Your task to perform on an android device: check battery use Image 0: 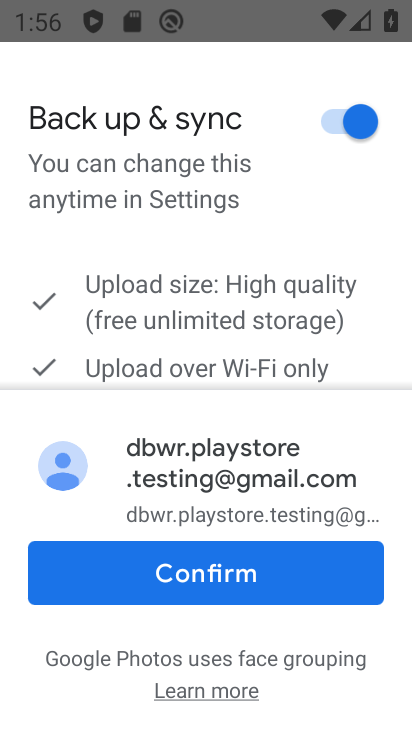
Step 0: click (245, 586)
Your task to perform on an android device: check battery use Image 1: 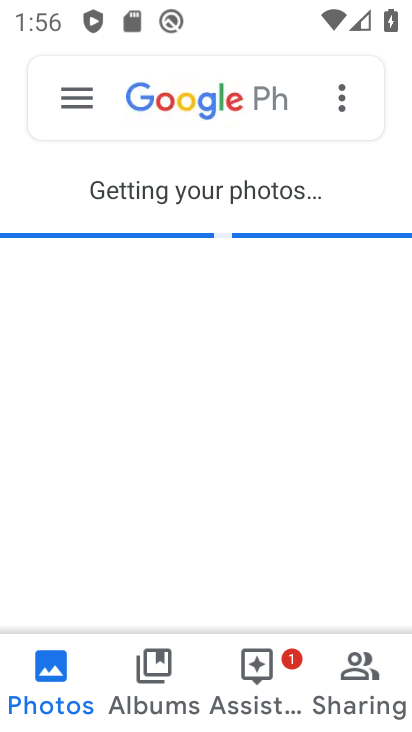
Step 1: press home button
Your task to perform on an android device: check battery use Image 2: 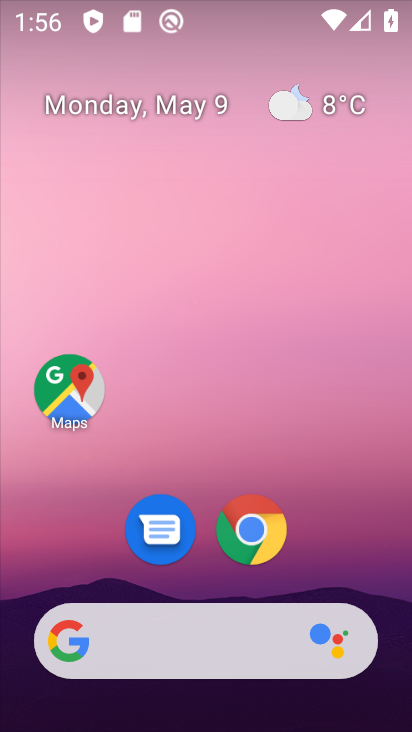
Step 2: drag from (276, 616) to (324, 2)
Your task to perform on an android device: check battery use Image 3: 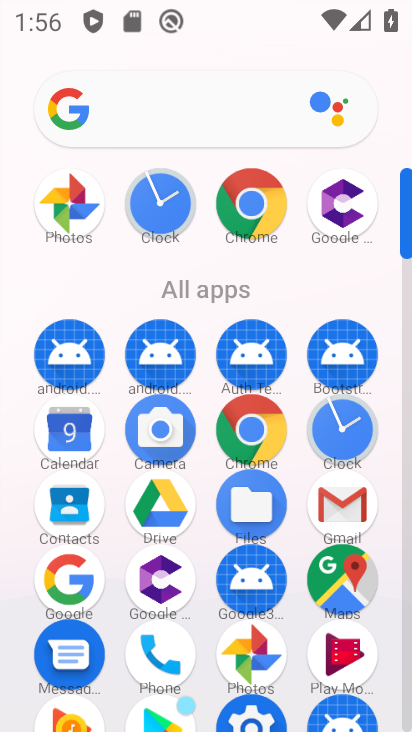
Step 3: drag from (206, 625) to (253, 30)
Your task to perform on an android device: check battery use Image 4: 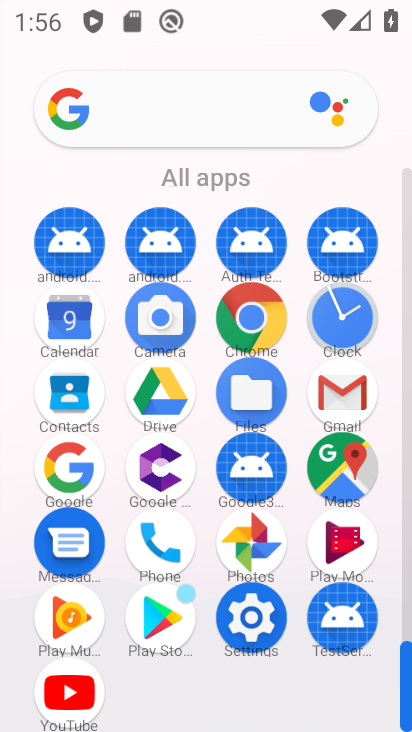
Step 4: click (253, 605)
Your task to perform on an android device: check battery use Image 5: 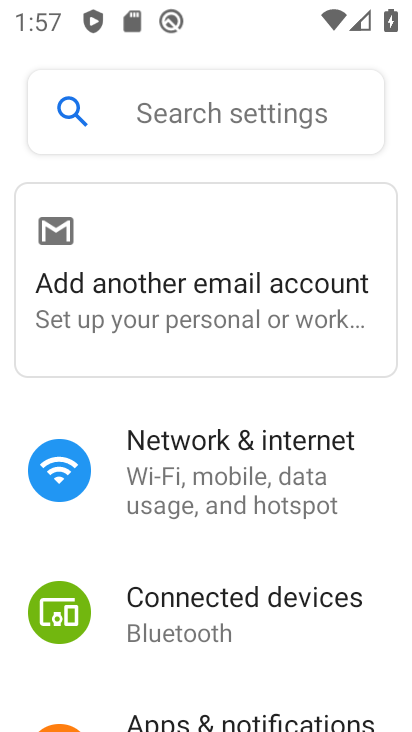
Step 5: drag from (224, 658) to (255, 23)
Your task to perform on an android device: check battery use Image 6: 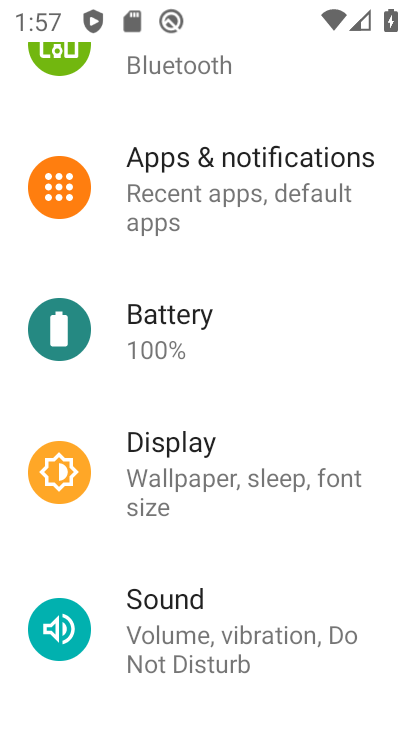
Step 6: click (218, 313)
Your task to perform on an android device: check battery use Image 7: 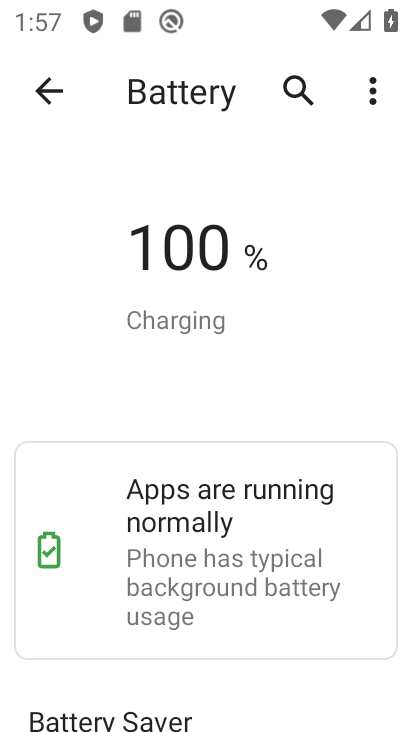
Step 7: task complete